Your task to perform on an android device: Open ESPN.com Image 0: 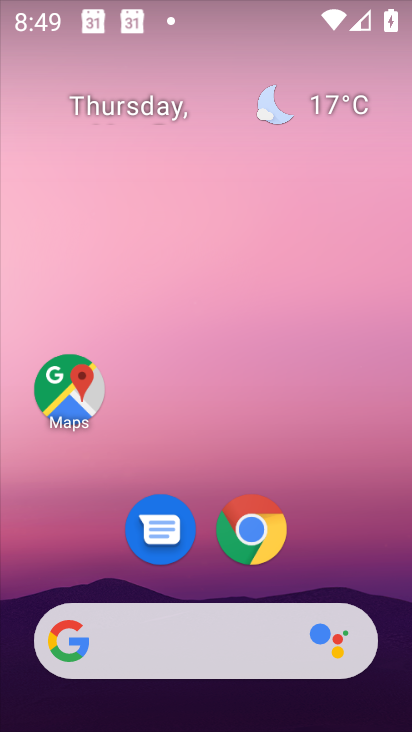
Step 0: click (243, 531)
Your task to perform on an android device: Open ESPN.com Image 1: 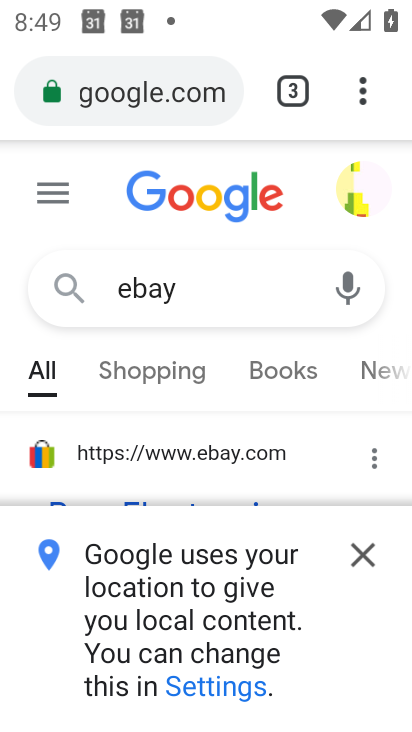
Step 1: click (362, 86)
Your task to perform on an android device: Open ESPN.com Image 2: 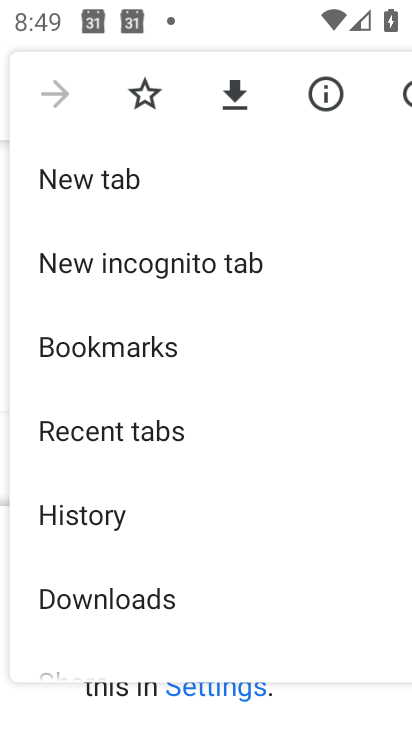
Step 2: click (84, 172)
Your task to perform on an android device: Open ESPN.com Image 3: 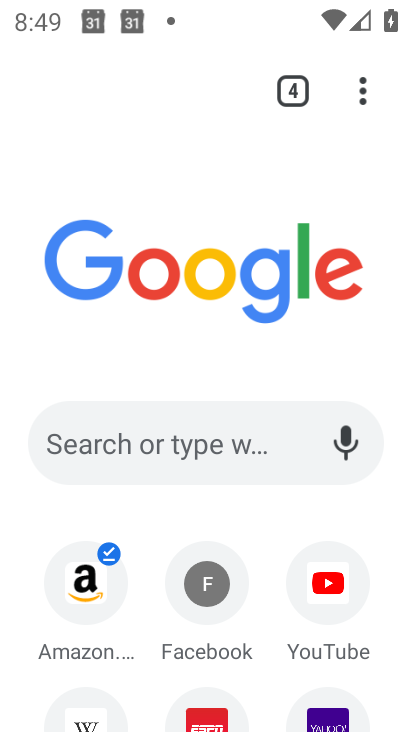
Step 3: click (171, 445)
Your task to perform on an android device: Open ESPN.com Image 4: 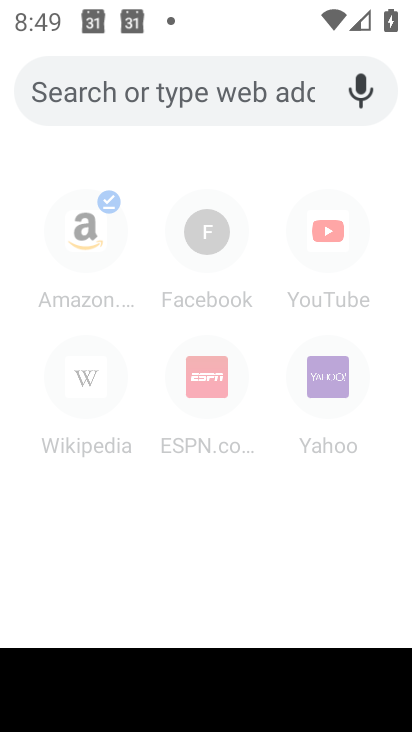
Step 4: type "espn.com"
Your task to perform on an android device: Open ESPN.com Image 5: 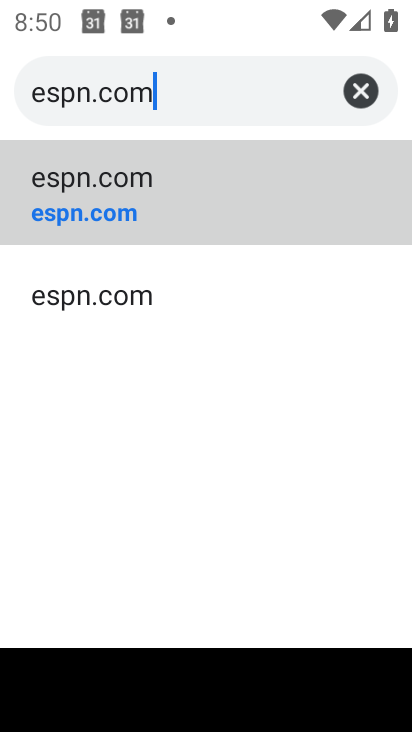
Step 5: click (101, 184)
Your task to perform on an android device: Open ESPN.com Image 6: 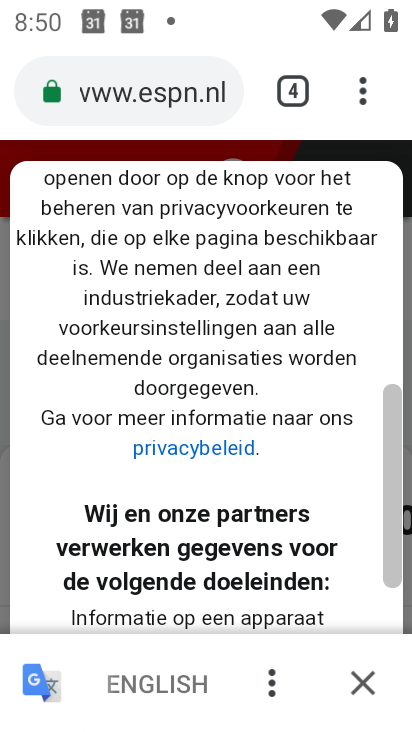
Step 6: task complete